Your task to perform on an android device: Show me popular games on the Play Store Image 0: 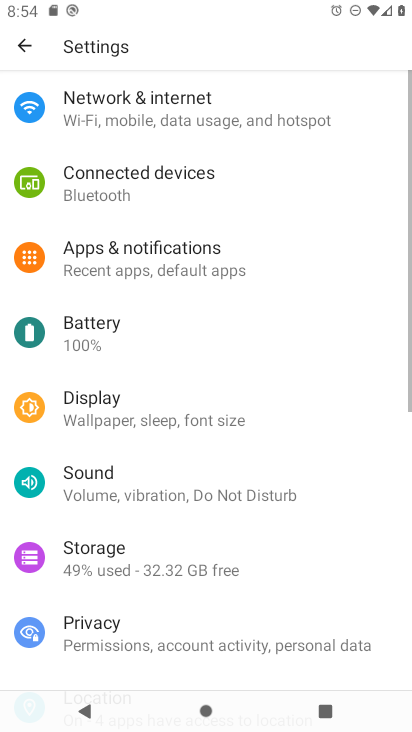
Step 0: press home button
Your task to perform on an android device: Show me popular games on the Play Store Image 1: 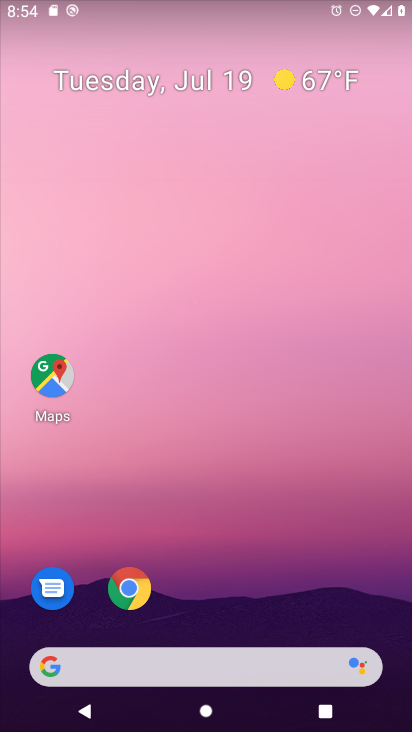
Step 1: drag from (347, 591) to (346, 59)
Your task to perform on an android device: Show me popular games on the Play Store Image 2: 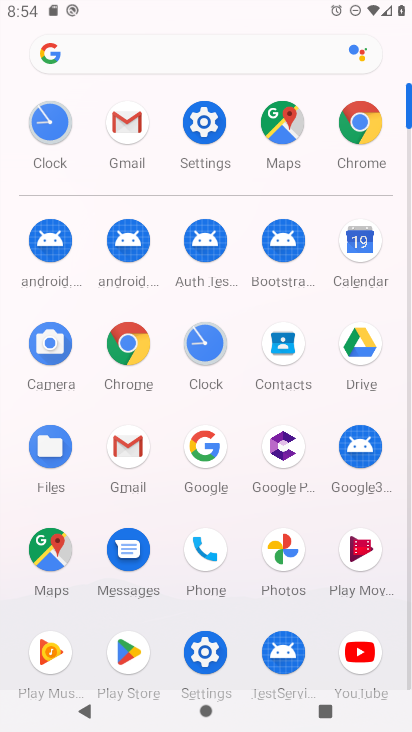
Step 2: drag from (399, 578) to (410, 422)
Your task to perform on an android device: Show me popular games on the Play Store Image 3: 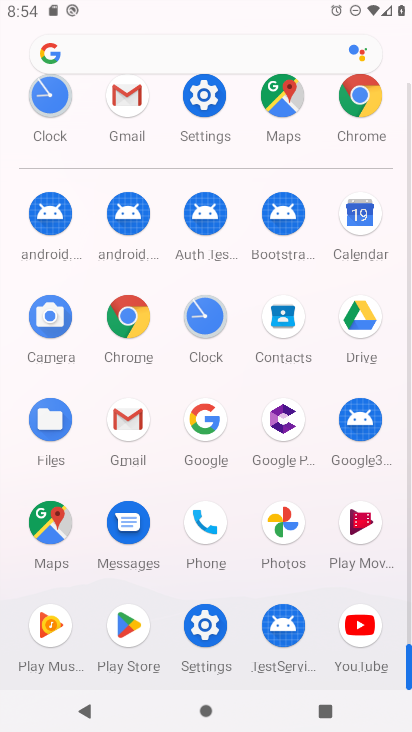
Step 3: click (124, 630)
Your task to perform on an android device: Show me popular games on the Play Store Image 4: 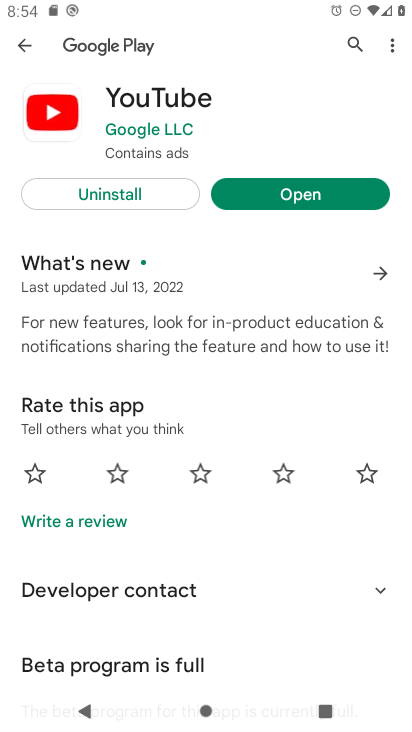
Step 4: press back button
Your task to perform on an android device: Show me popular games on the Play Store Image 5: 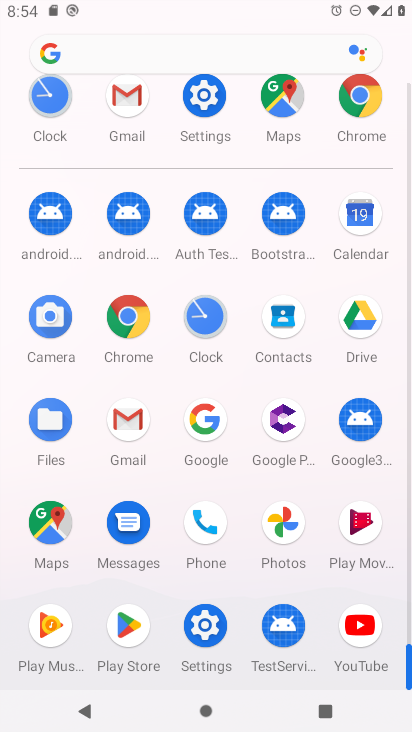
Step 5: click (133, 630)
Your task to perform on an android device: Show me popular games on the Play Store Image 6: 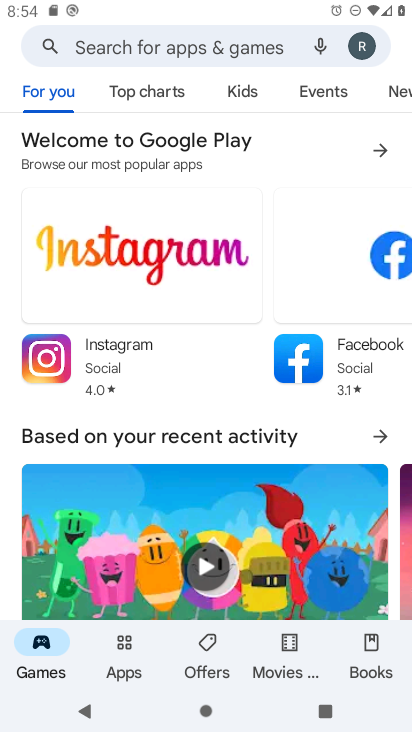
Step 6: task complete